Your task to perform on an android device: set an alarm Image 0: 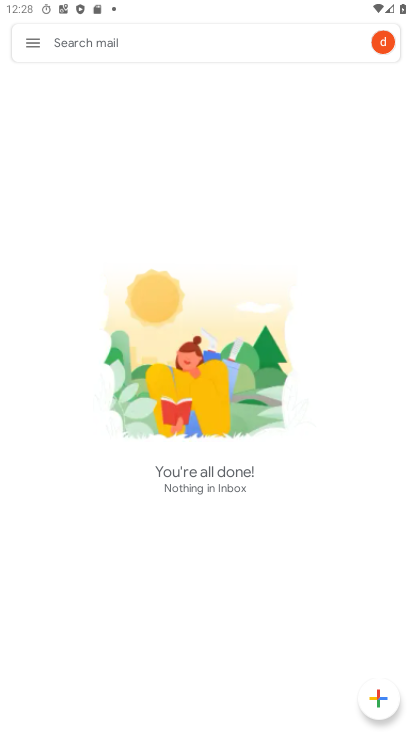
Step 0: drag from (395, 674) to (112, 101)
Your task to perform on an android device: set an alarm Image 1: 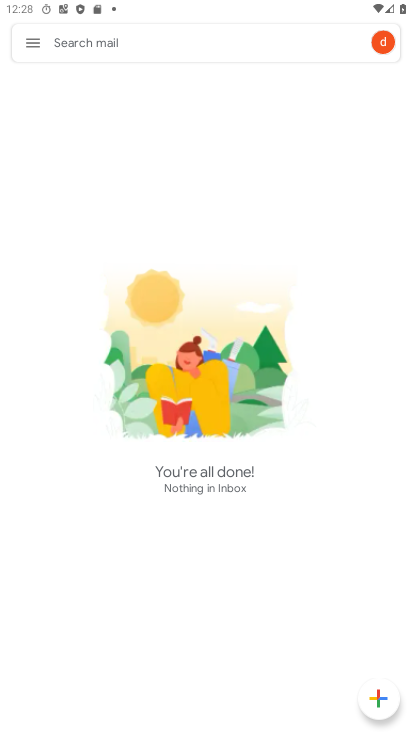
Step 1: press home button
Your task to perform on an android device: set an alarm Image 2: 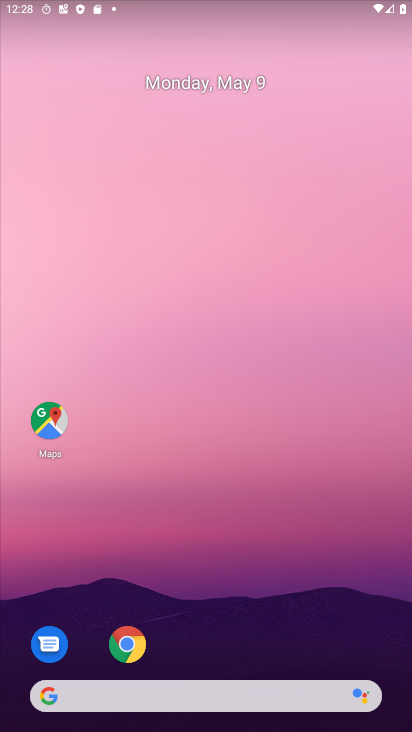
Step 2: drag from (322, 668) to (0, 27)
Your task to perform on an android device: set an alarm Image 3: 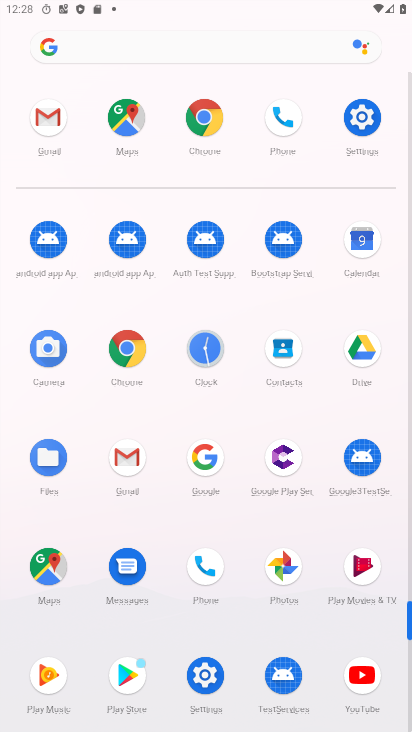
Step 3: click (349, 388)
Your task to perform on an android device: set an alarm Image 4: 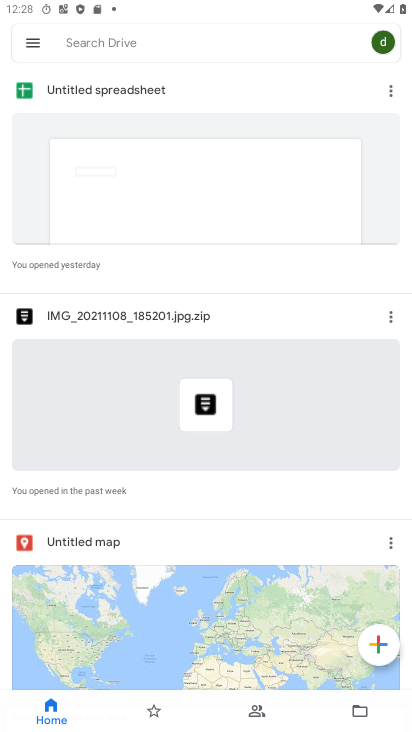
Step 4: press home button
Your task to perform on an android device: set an alarm Image 5: 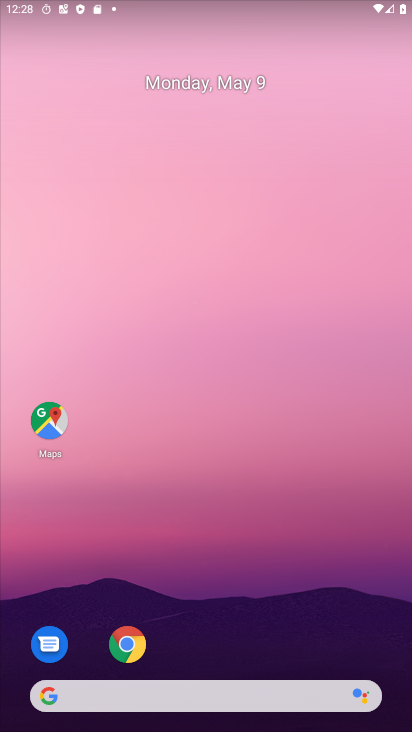
Step 5: drag from (291, 587) to (2, 60)
Your task to perform on an android device: set an alarm Image 6: 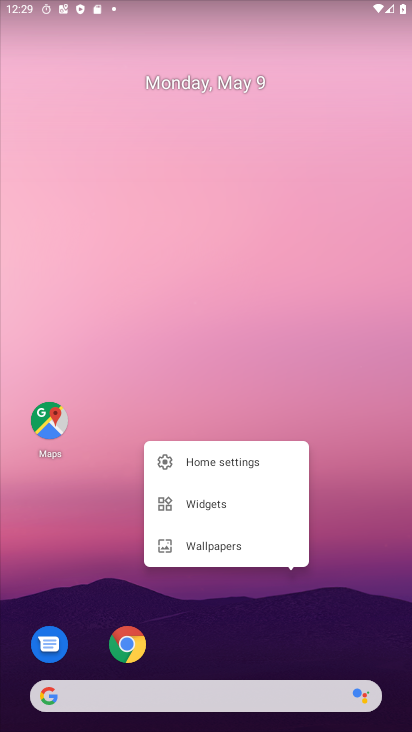
Step 6: drag from (271, 530) to (190, 14)
Your task to perform on an android device: set an alarm Image 7: 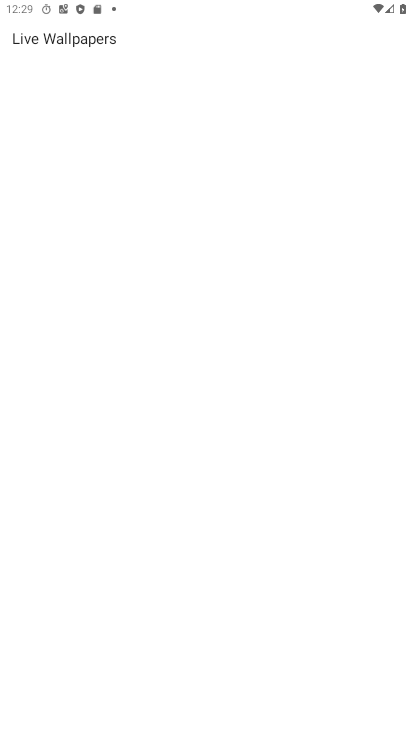
Step 7: drag from (258, 489) to (10, 38)
Your task to perform on an android device: set an alarm Image 8: 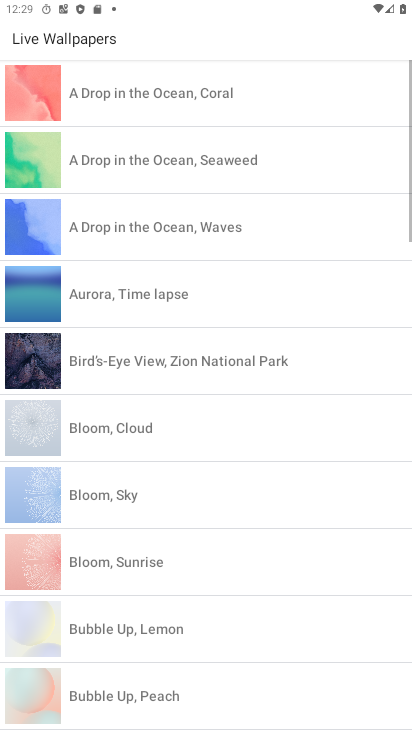
Step 8: press back button
Your task to perform on an android device: set an alarm Image 9: 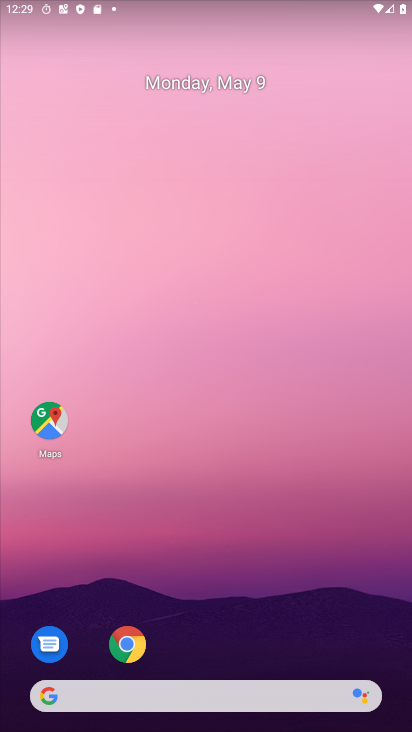
Step 9: drag from (264, 639) to (47, 120)
Your task to perform on an android device: set an alarm Image 10: 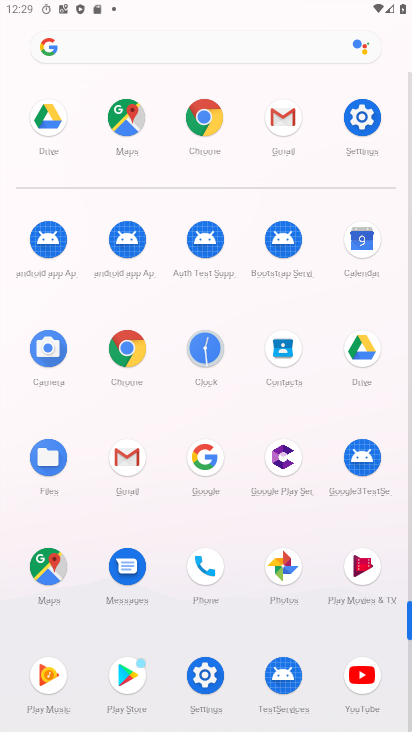
Step 10: click (187, 340)
Your task to perform on an android device: set an alarm Image 11: 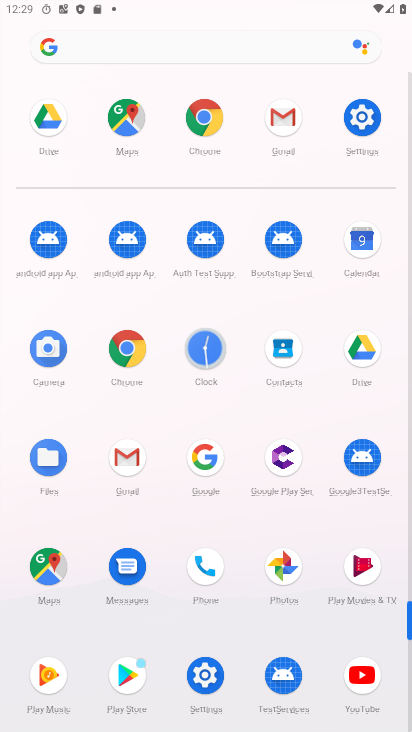
Step 11: click (206, 339)
Your task to perform on an android device: set an alarm Image 12: 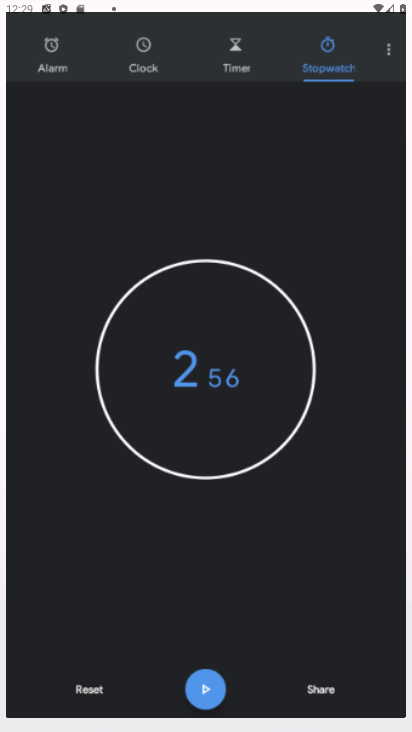
Step 12: click (206, 339)
Your task to perform on an android device: set an alarm Image 13: 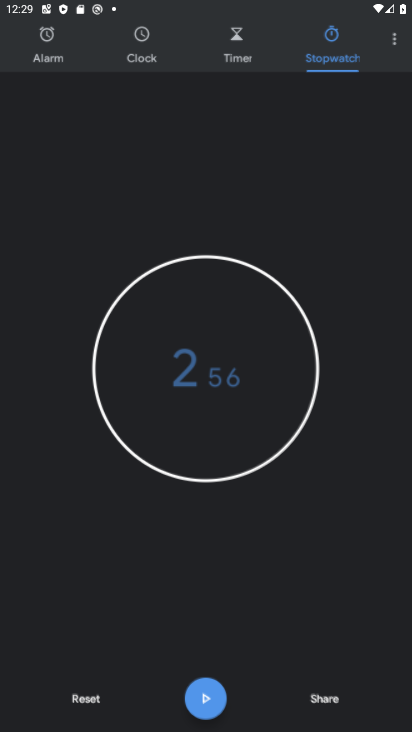
Step 13: click (206, 338)
Your task to perform on an android device: set an alarm Image 14: 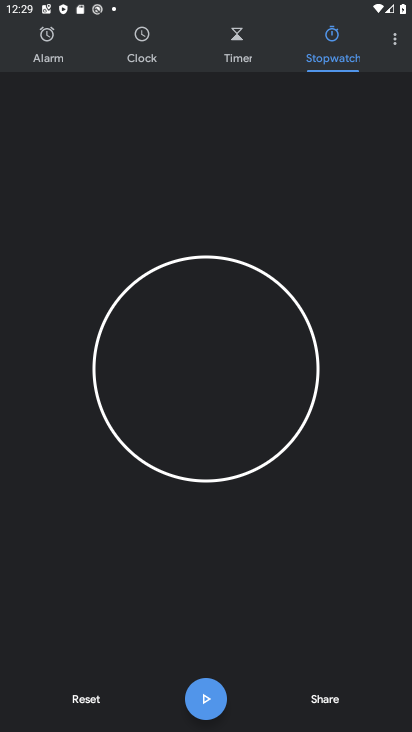
Step 14: click (134, 40)
Your task to perform on an android device: set an alarm Image 15: 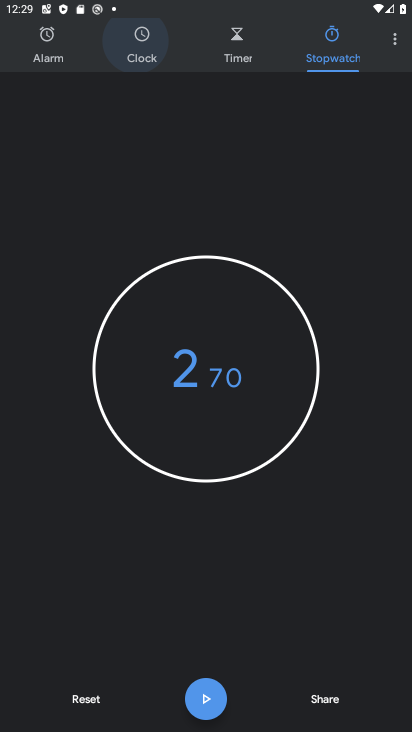
Step 15: click (137, 39)
Your task to perform on an android device: set an alarm Image 16: 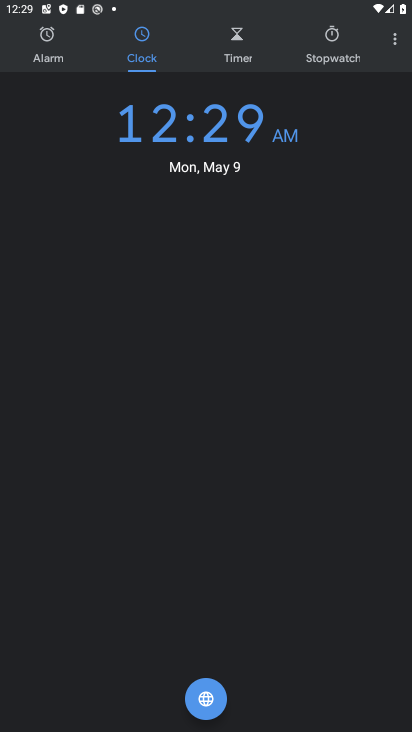
Step 16: click (205, 706)
Your task to perform on an android device: set an alarm Image 17: 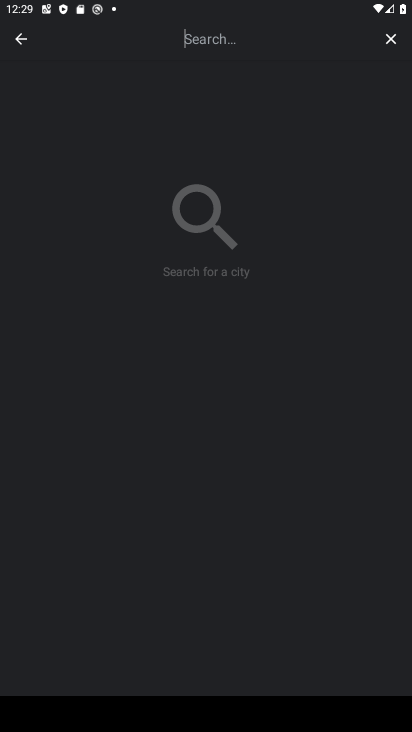
Step 17: click (18, 38)
Your task to perform on an android device: set an alarm Image 18: 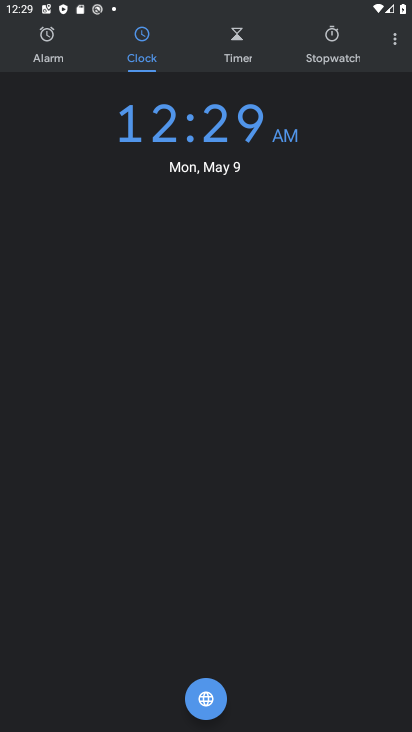
Step 18: click (41, 54)
Your task to perform on an android device: set an alarm Image 19: 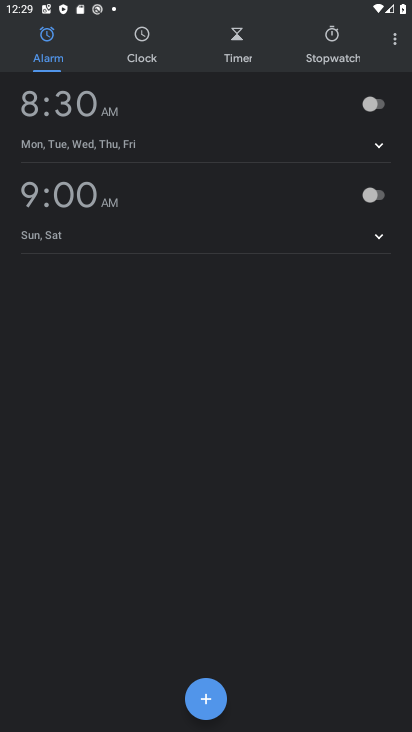
Step 19: click (368, 192)
Your task to perform on an android device: set an alarm Image 20: 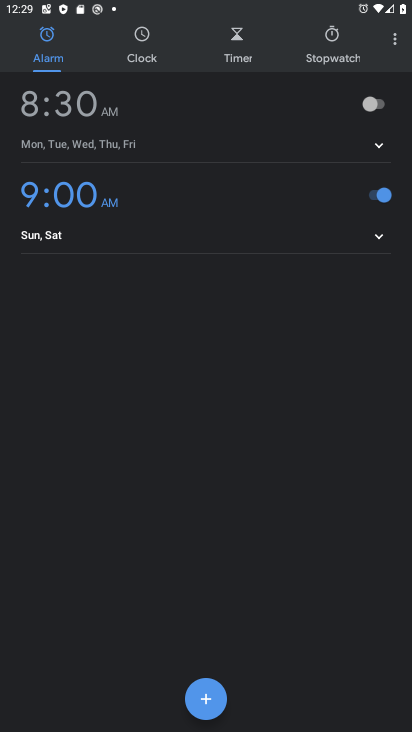
Step 20: task complete